Your task to perform on an android device: Open Reddit.com Image 0: 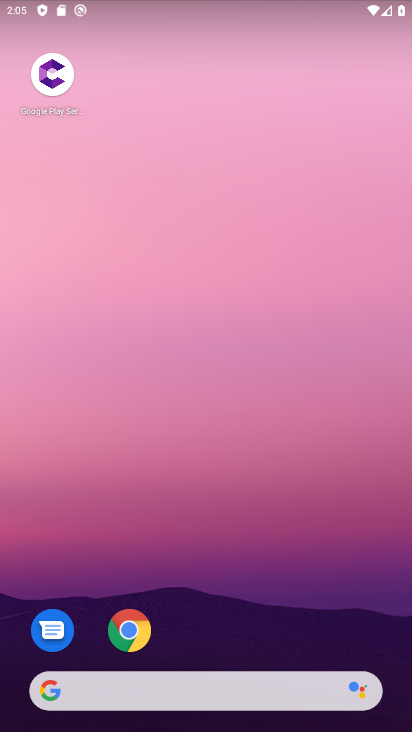
Step 0: click (145, 622)
Your task to perform on an android device: Open Reddit.com Image 1: 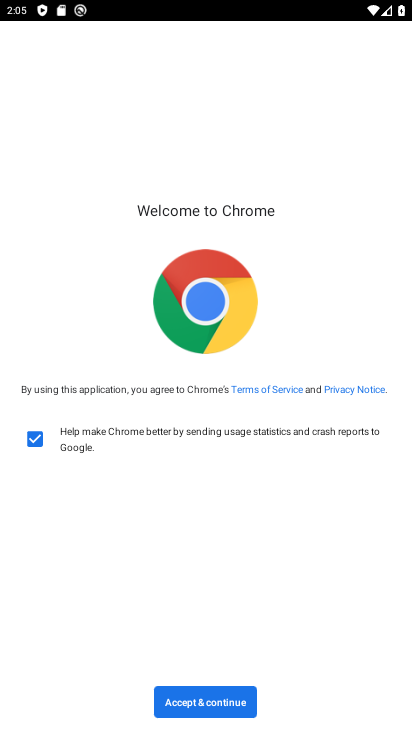
Step 1: click (222, 695)
Your task to perform on an android device: Open Reddit.com Image 2: 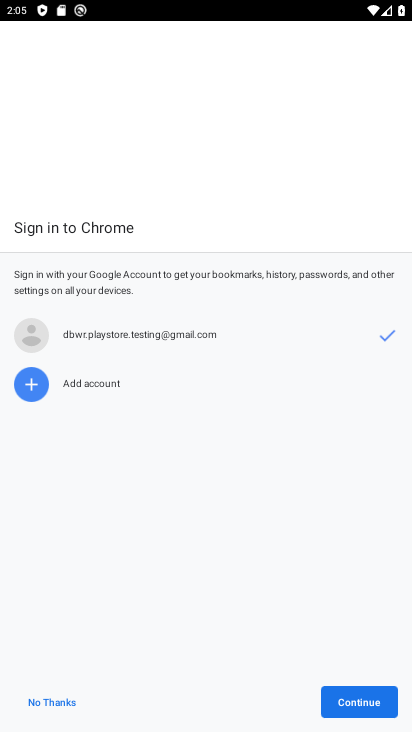
Step 2: click (400, 707)
Your task to perform on an android device: Open Reddit.com Image 3: 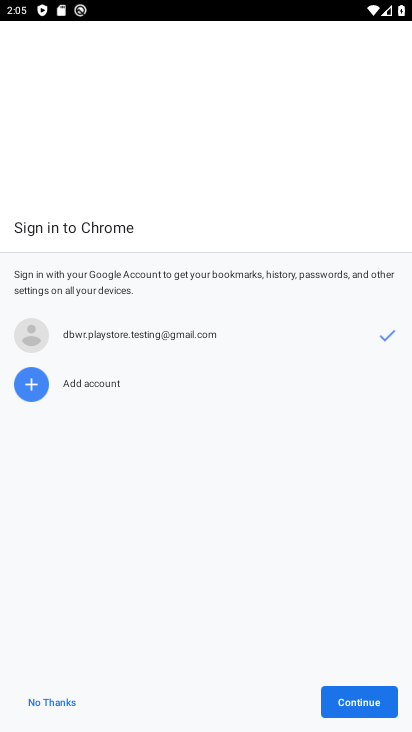
Step 3: click (386, 705)
Your task to perform on an android device: Open Reddit.com Image 4: 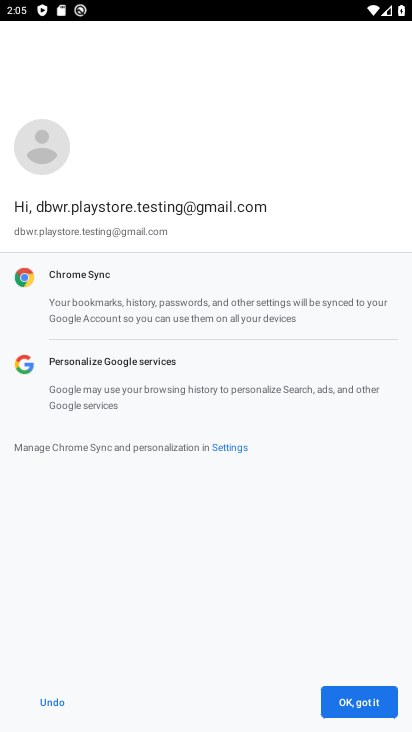
Step 4: click (360, 710)
Your task to perform on an android device: Open Reddit.com Image 5: 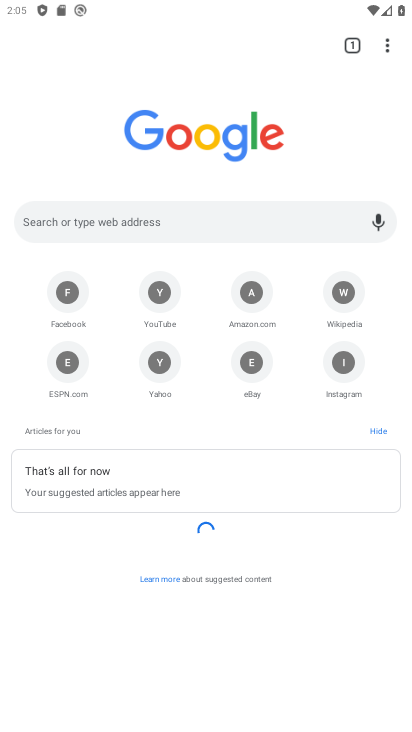
Step 5: click (203, 208)
Your task to perform on an android device: Open Reddit.com Image 6: 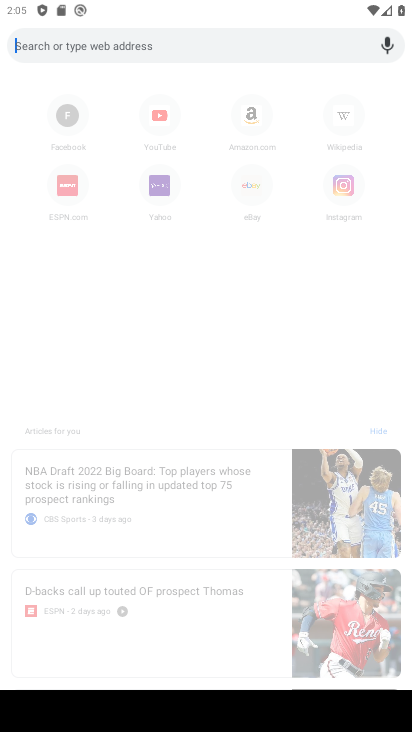
Step 6: type "reddit.com"
Your task to perform on an android device: Open Reddit.com Image 7: 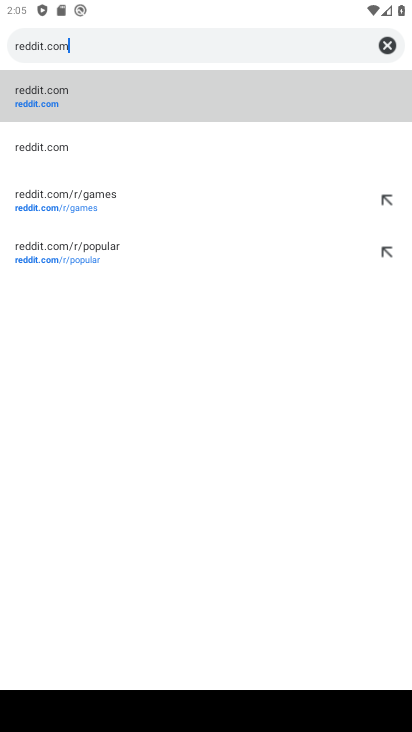
Step 7: click (77, 88)
Your task to perform on an android device: Open Reddit.com Image 8: 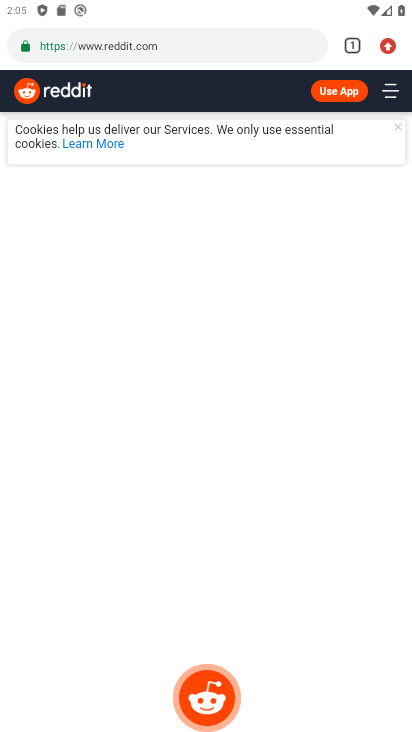
Step 8: task complete